Your task to perform on an android device: change alarm snooze length Image 0: 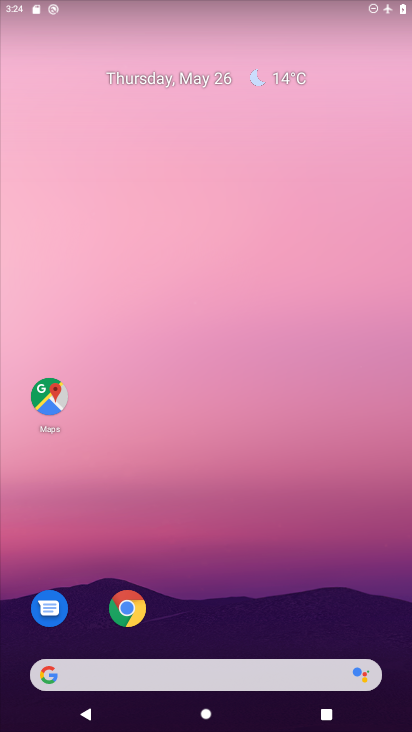
Step 0: drag from (331, 595) to (358, 32)
Your task to perform on an android device: change alarm snooze length Image 1: 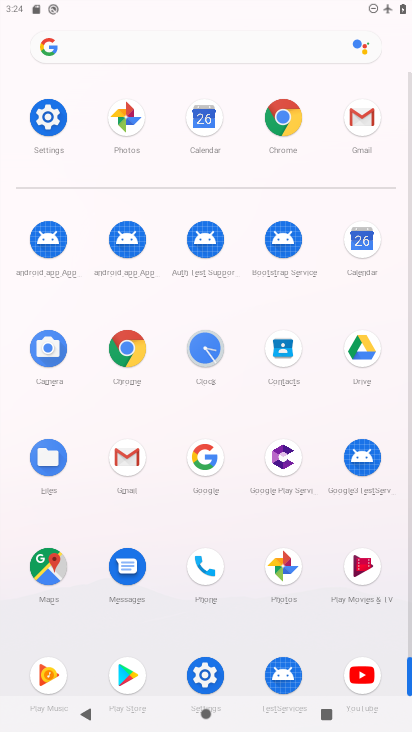
Step 1: click (198, 350)
Your task to perform on an android device: change alarm snooze length Image 2: 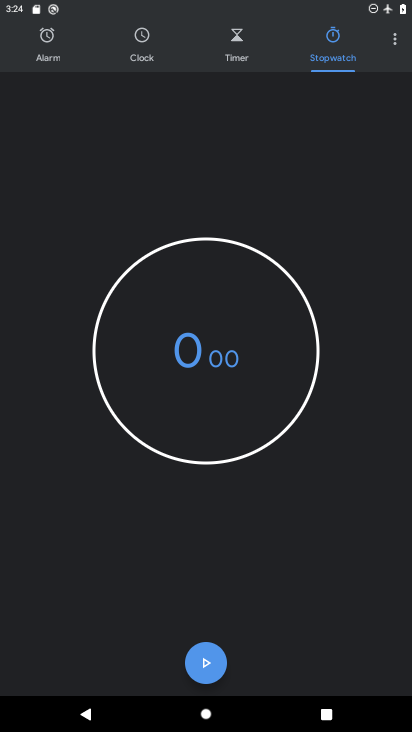
Step 2: click (388, 50)
Your task to perform on an android device: change alarm snooze length Image 3: 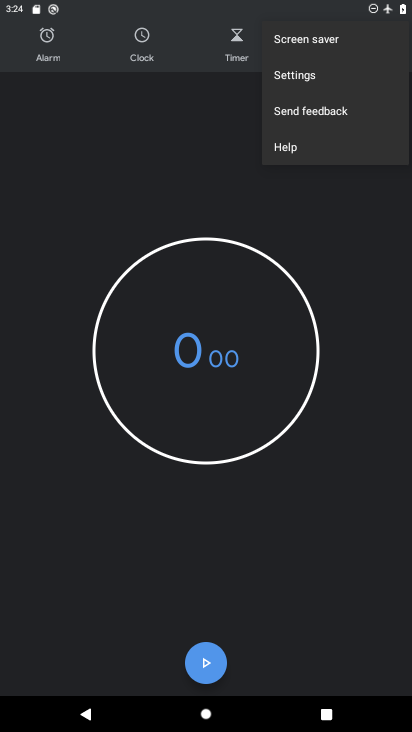
Step 3: click (309, 78)
Your task to perform on an android device: change alarm snooze length Image 4: 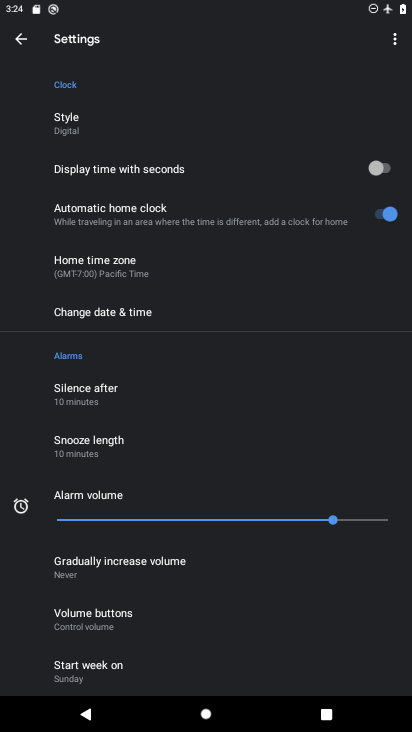
Step 4: click (116, 445)
Your task to perform on an android device: change alarm snooze length Image 5: 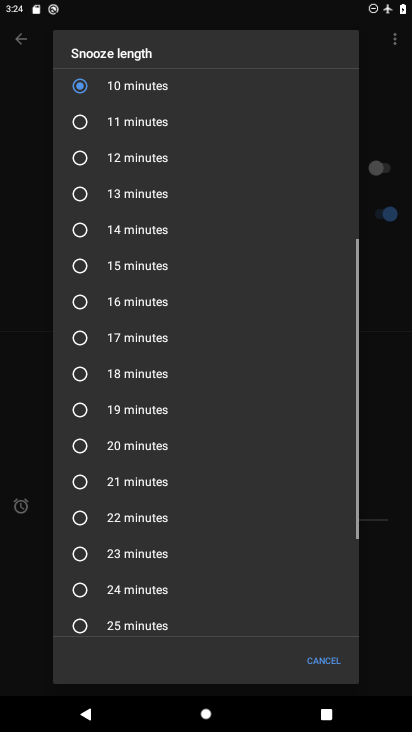
Step 5: click (101, 372)
Your task to perform on an android device: change alarm snooze length Image 6: 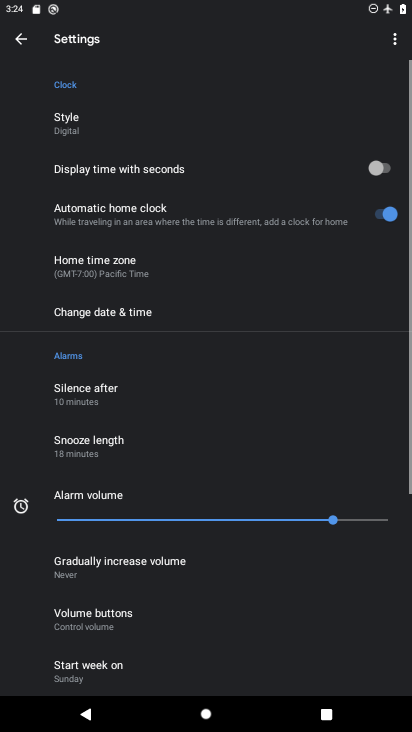
Step 6: task complete